Your task to perform on an android device: Search for "macbook pro" on newegg.com, select the first entry, and add it to the cart. Image 0: 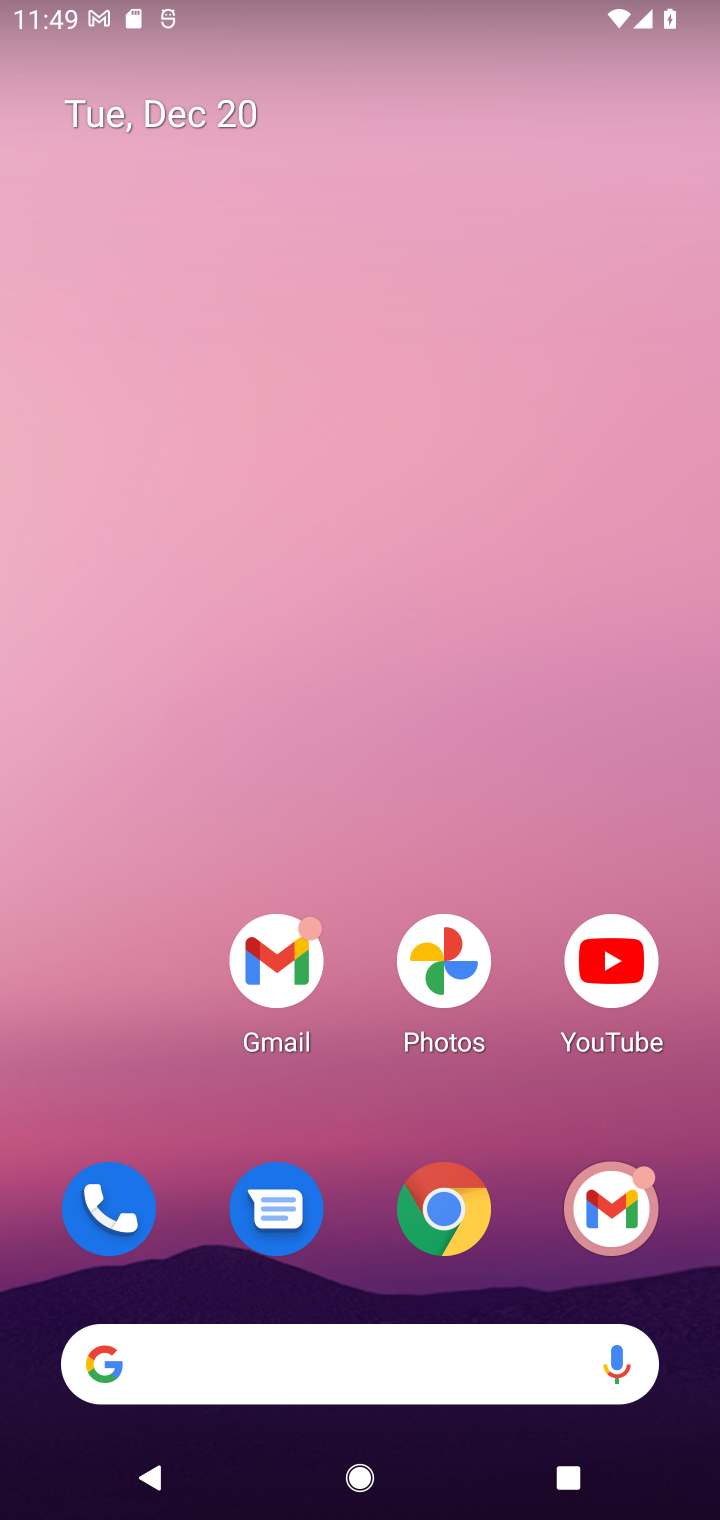
Step 0: click (442, 1202)
Your task to perform on an android device: Search for "macbook pro" on newegg.com, select the first entry, and add it to the cart. Image 1: 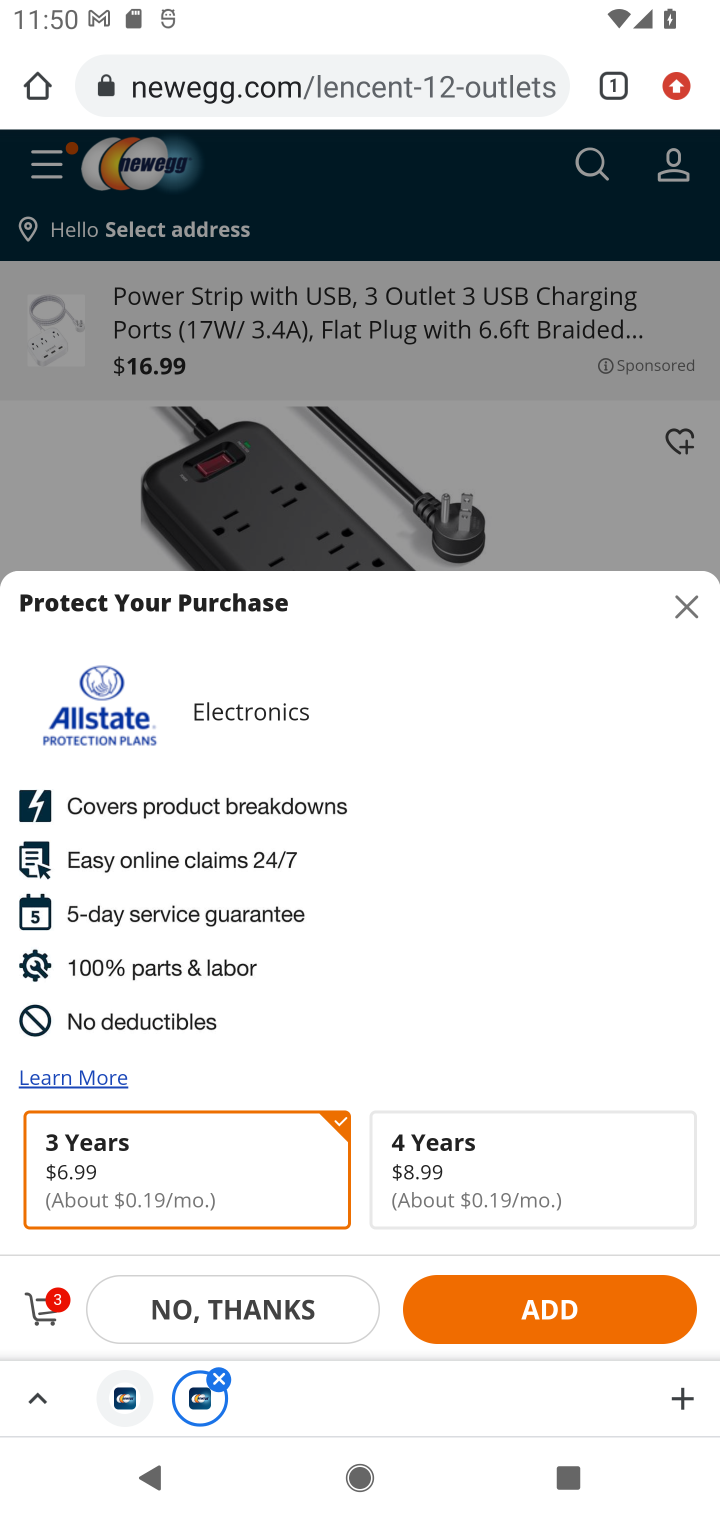
Step 1: click (691, 608)
Your task to perform on an android device: Search for "macbook pro" on newegg.com, select the first entry, and add it to the cart. Image 2: 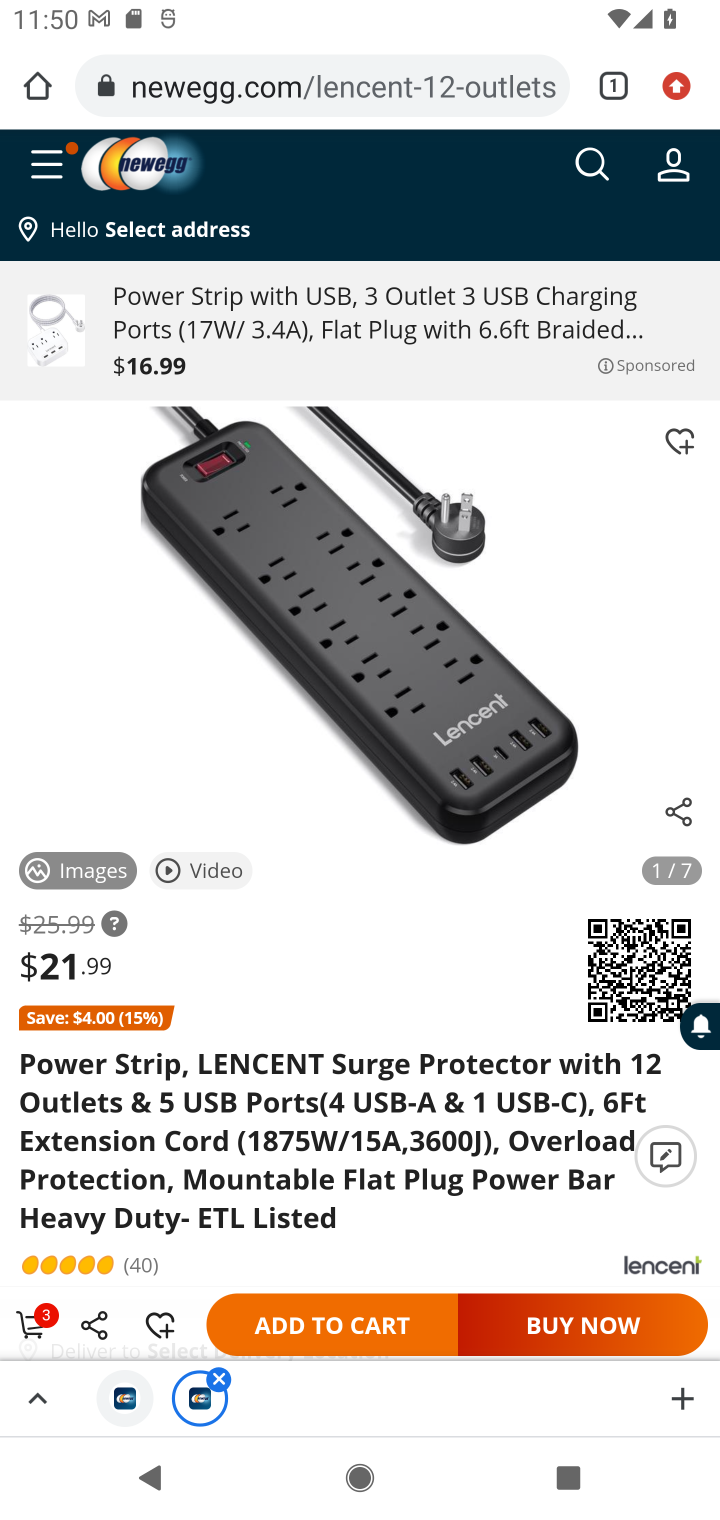
Step 2: click (598, 167)
Your task to perform on an android device: Search for "macbook pro" on newegg.com, select the first entry, and add it to the cart. Image 3: 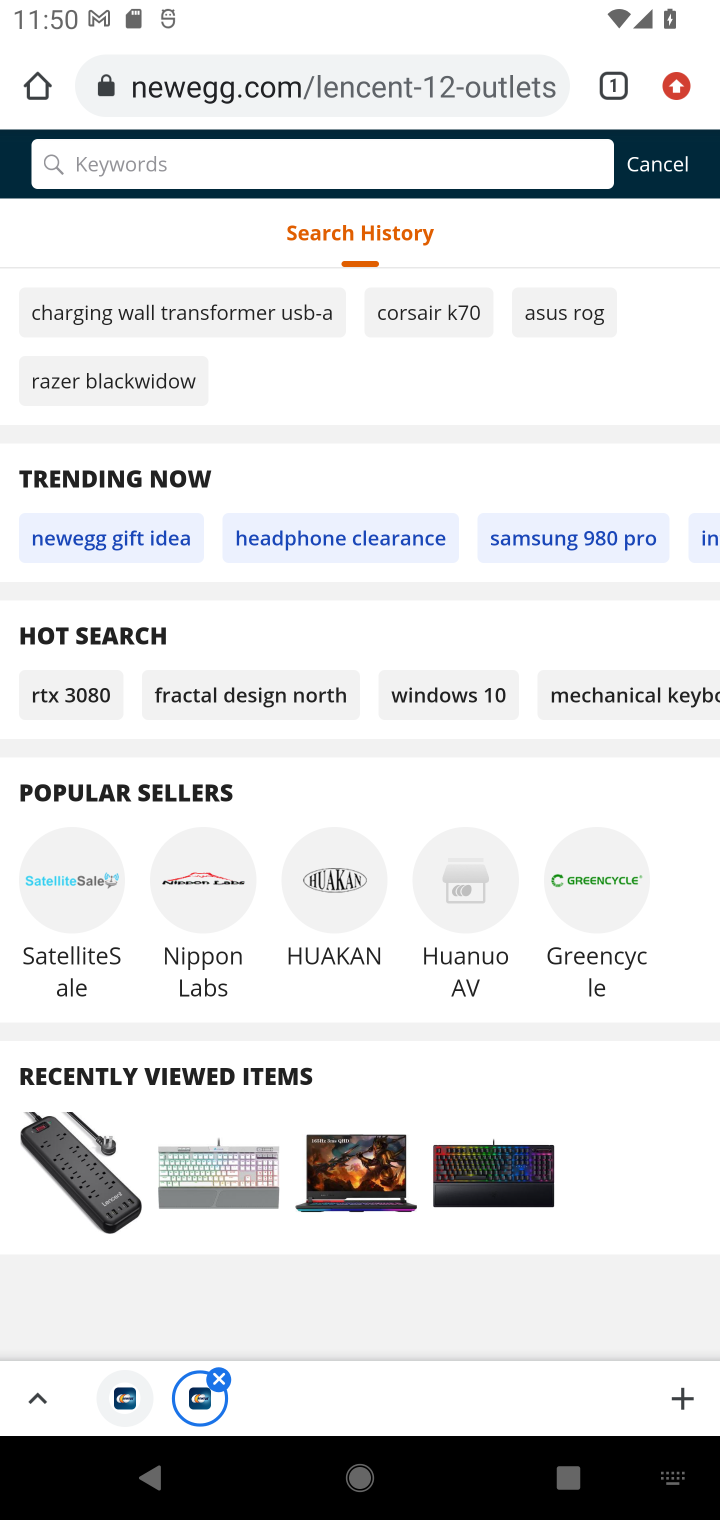
Step 3: type "macbook pro"
Your task to perform on an android device: Search for "macbook pro" on newegg.com, select the first entry, and add it to the cart. Image 4: 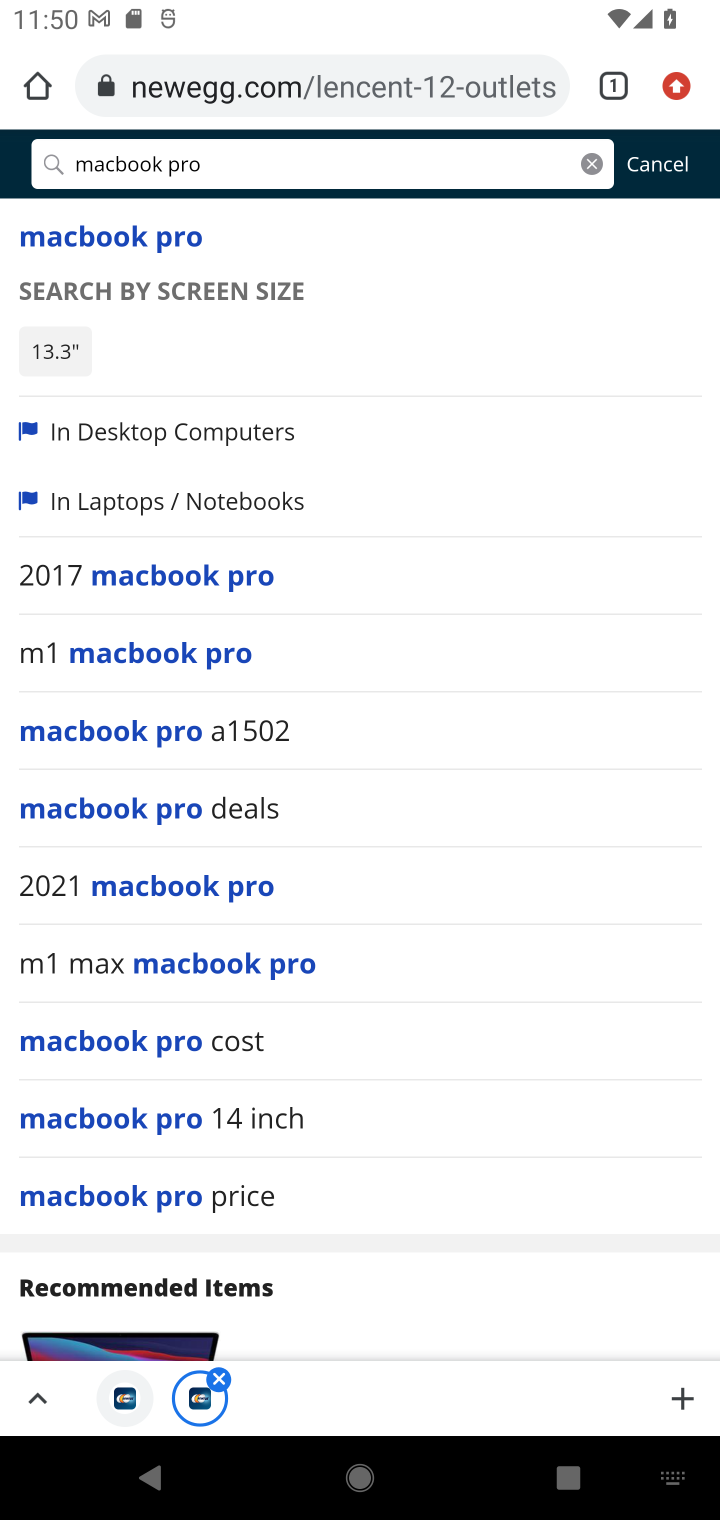
Step 4: click (137, 248)
Your task to perform on an android device: Search for "macbook pro" on newegg.com, select the first entry, and add it to the cart. Image 5: 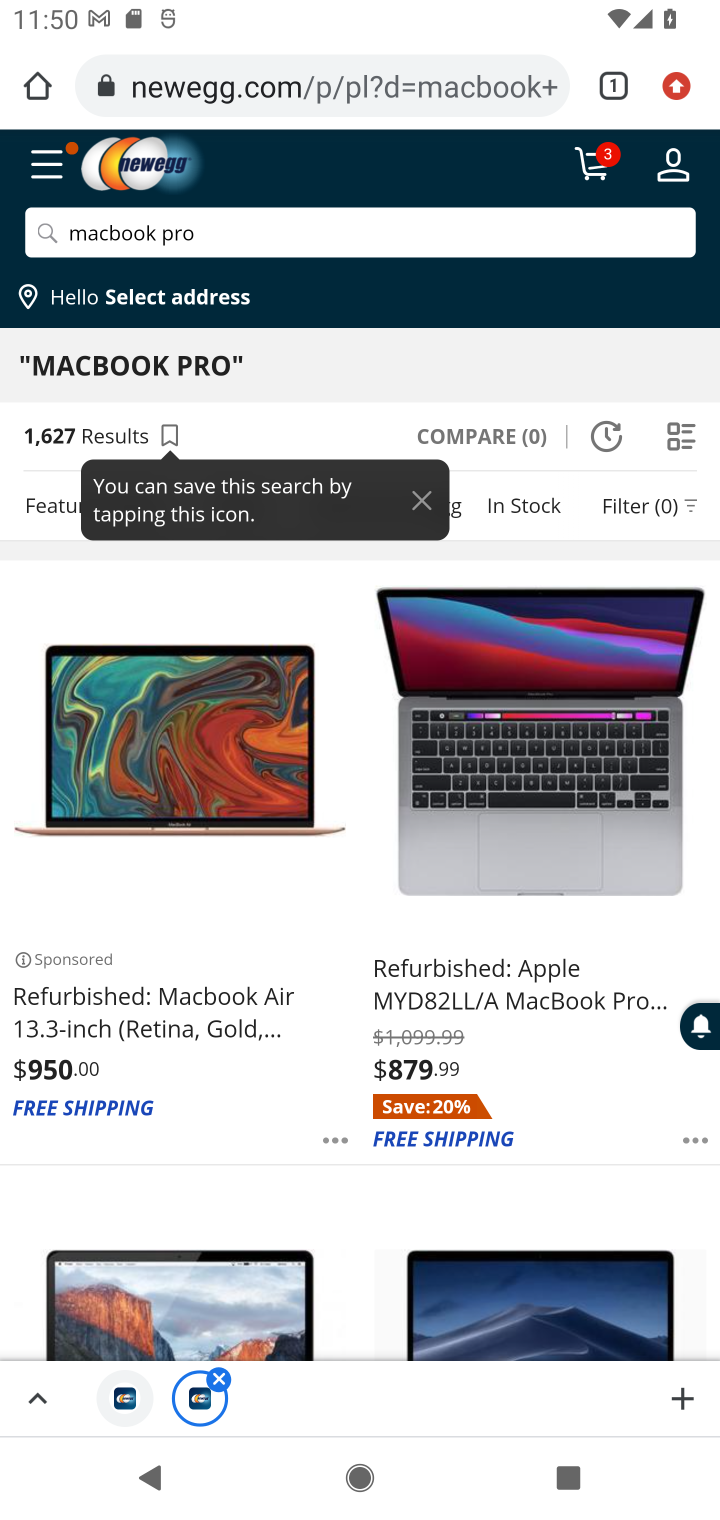
Step 5: task complete